Your task to perform on an android device: toggle show notifications on the lock screen Image 0: 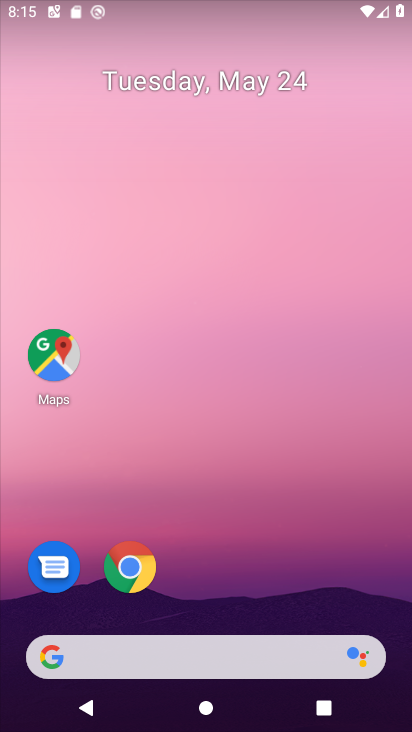
Step 0: drag from (278, 515) to (190, 32)
Your task to perform on an android device: toggle show notifications on the lock screen Image 1: 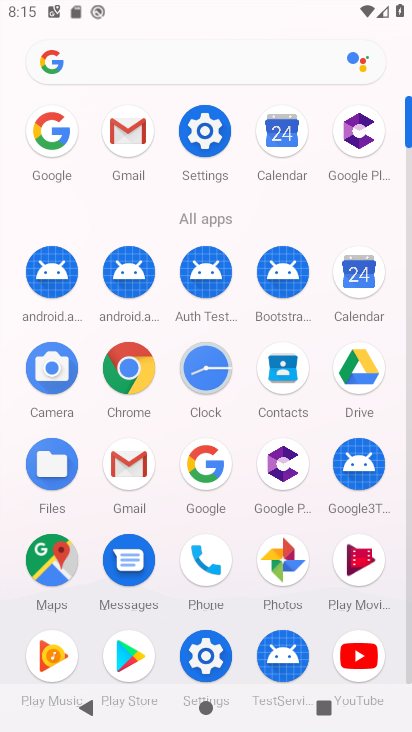
Step 1: click (204, 123)
Your task to perform on an android device: toggle show notifications on the lock screen Image 2: 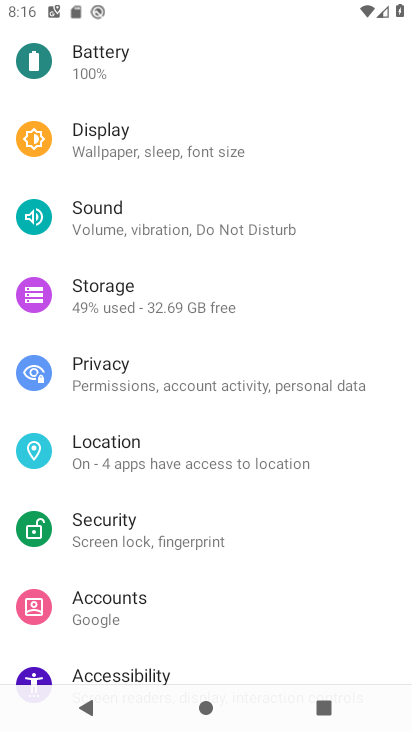
Step 2: drag from (247, 139) to (256, 519)
Your task to perform on an android device: toggle show notifications on the lock screen Image 3: 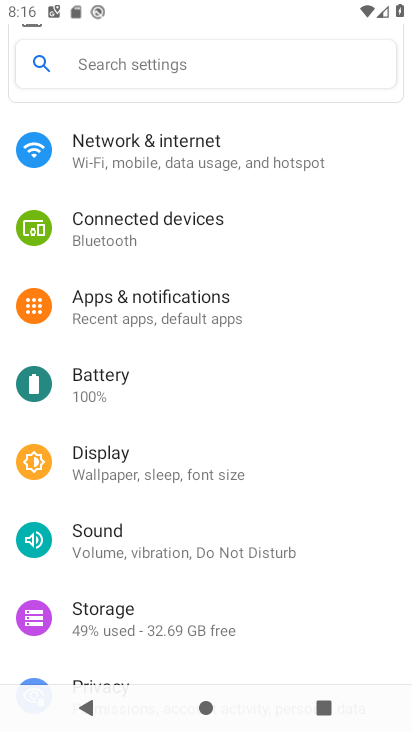
Step 3: click (217, 320)
Your task to perform on an android device: toggle show notifications on the lock screen Image 4: 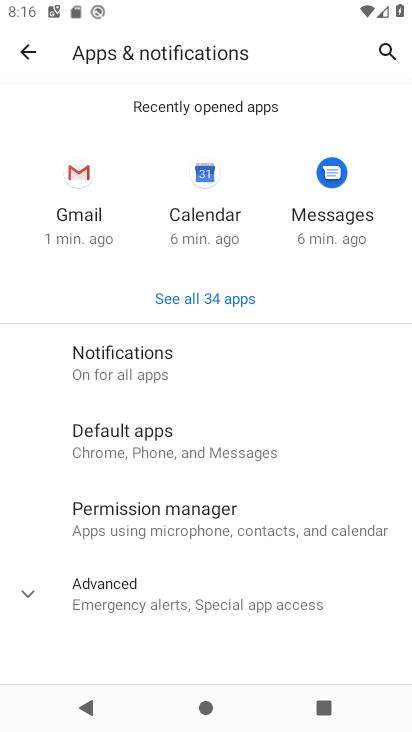
Step 4: click (298, 363)
Your task to perform on an android device: toggle show notifications on the lock screen Image 5: 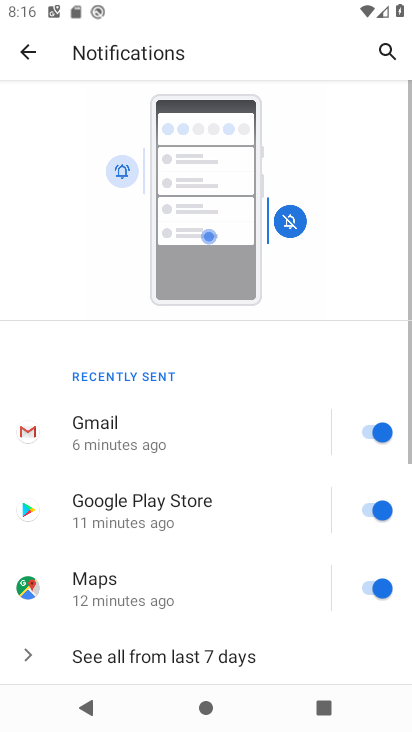
Step 5: drag from (246, 641) to (262, 193)
Your task to perform on an android device: toggle show notifications on the lock screen Image 6: 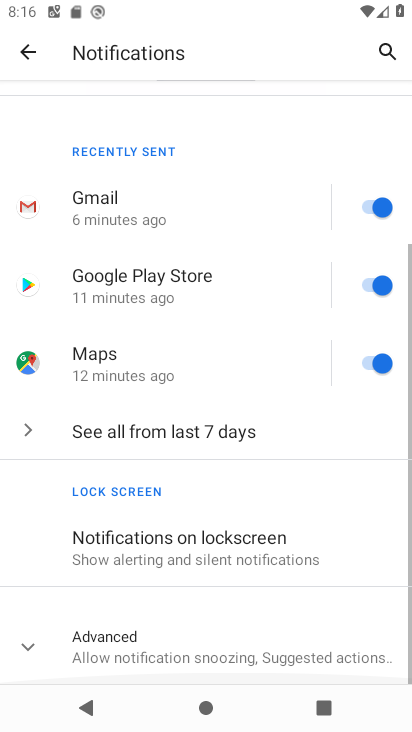
Step 6: click (190, 572)
Your task to perform on an android device: toggle show notifications on the lock screen Image 7: 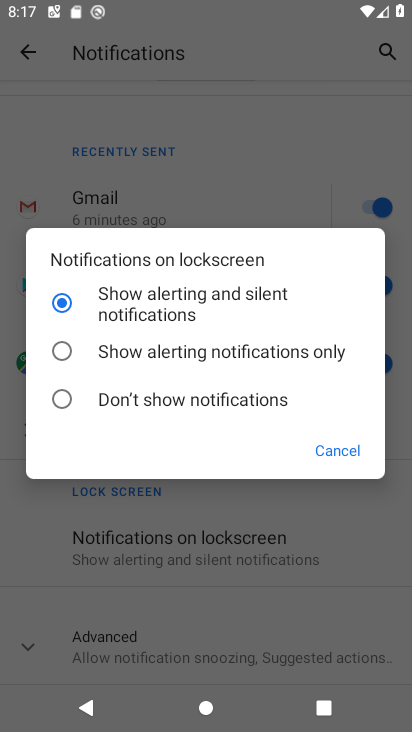
Step 7: click (138, 401)
Your task to perform on an android device: toggle show notifications on the lock screen Image 8: 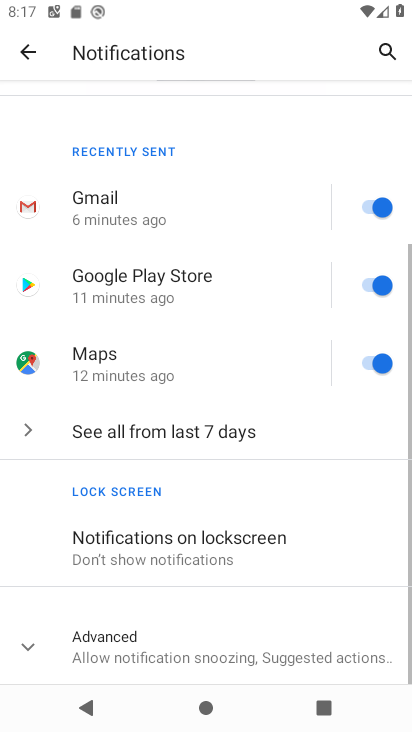
Step 8: task complete